Your task to perform on an android device: Open Youtube and go to the subscriptions tab Image 0: 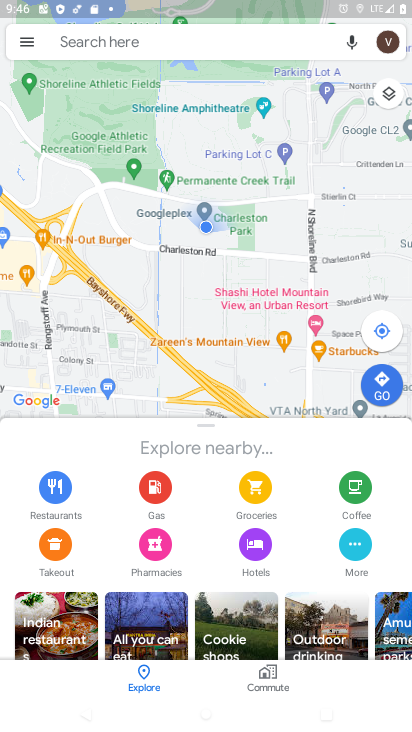
Step 0: press home button
Your task to perform on an android device: Open Youtube and go to the subscriptions tab Image 1: 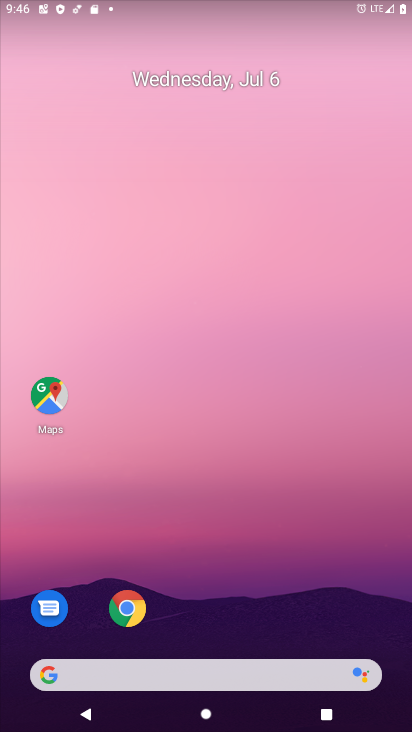
Step 1: drag from (385, 636) to (174, 15)
Your task to perform on an android device: Open Youtube and go to the subscriptions tab Image 2: 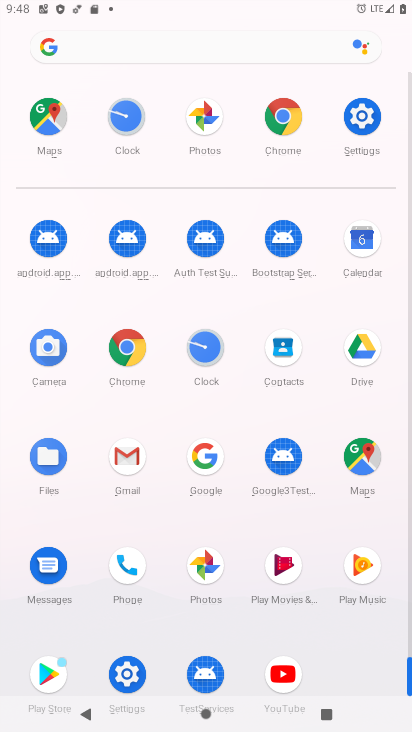
Step 2: click (288, 668)
Your task to perform on an android device: Open Youtube and go to the subscriptions tab Image 3: 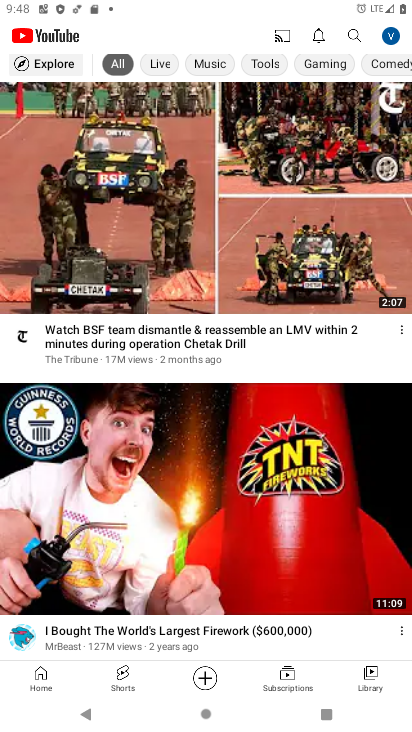
Step 3: click (280, 669)
Your task to perform on an android device: Open Youtube and go to the subscriptions tab Image 4: 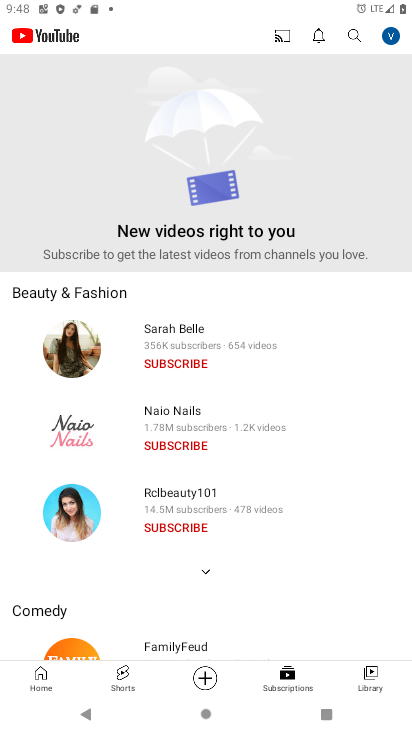
Step 4: task complete